Your task to perform on an android device: Open the web browser Image 0: 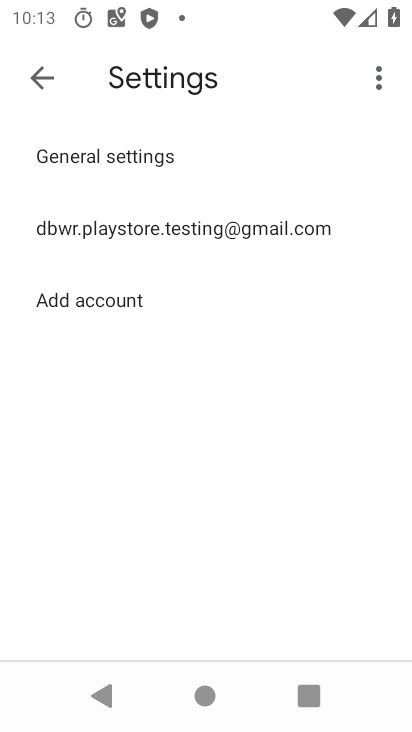
Step 0: press home button
Your task to perform on an android device: Open the web browser Image 1: 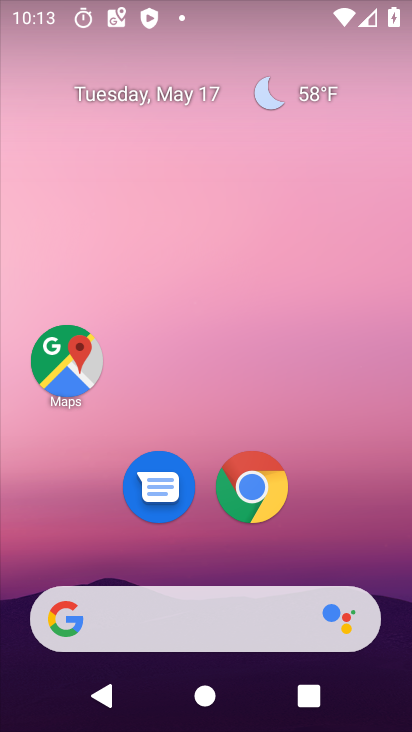
Step 1: click (251, 480)
Your task to perform on an android device: Open the web browser Image 2: 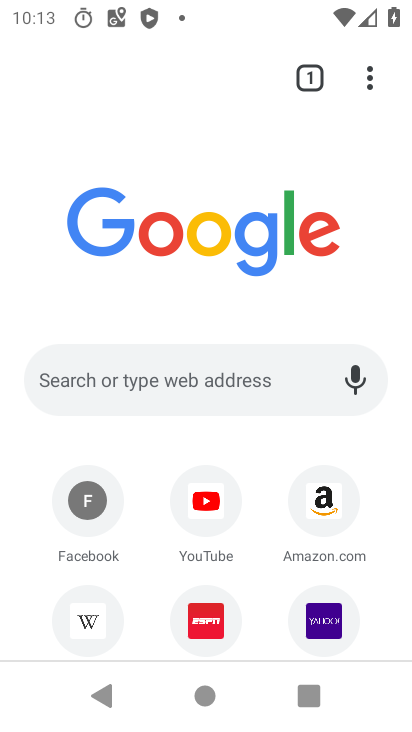
Step 2: task complete